Your task to perform on an android device: Add "logitech g pro" to the cart on bestbuy.com Image 0: 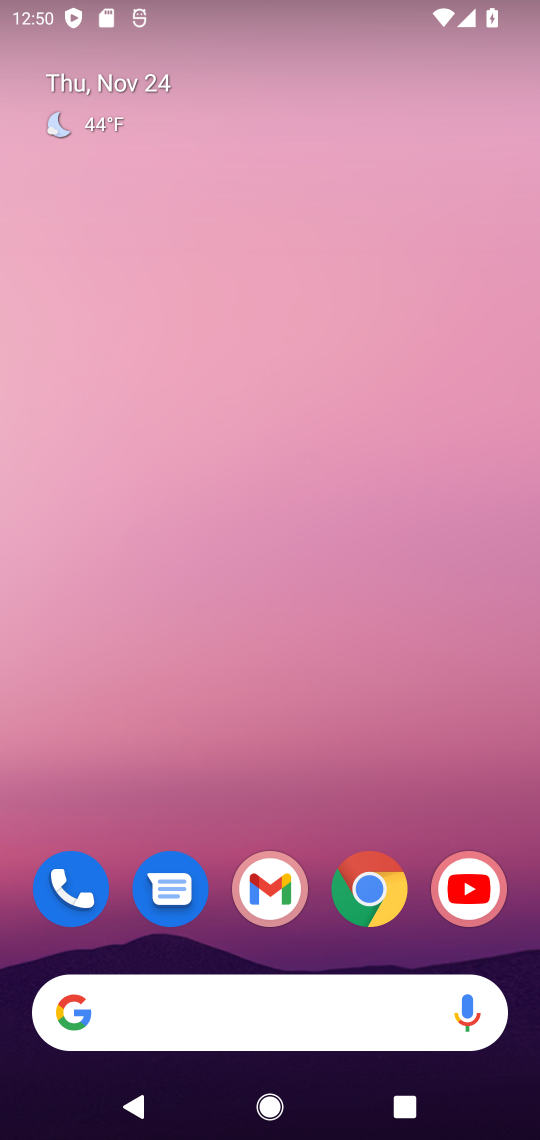
Step 0: click (368, 890)
Your task to perform on an android device: Add "logitech g pro" to the cart on bestbuy.com Image 1: 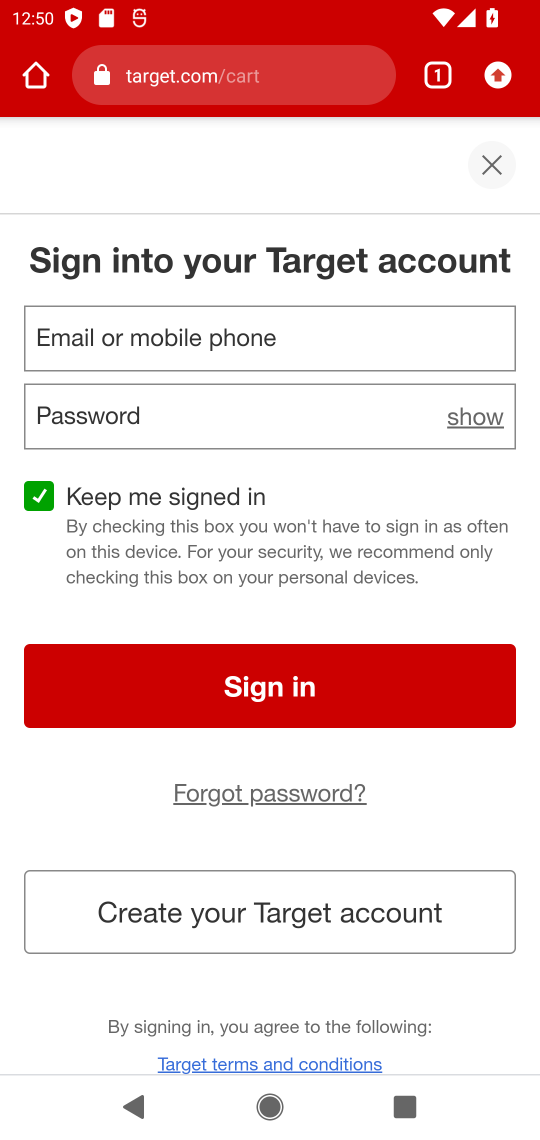
Step 1: click (171, 88)
Your task to perform on an android device: Add "logitech g pro" to the cart on bestbuy.com Image 2: 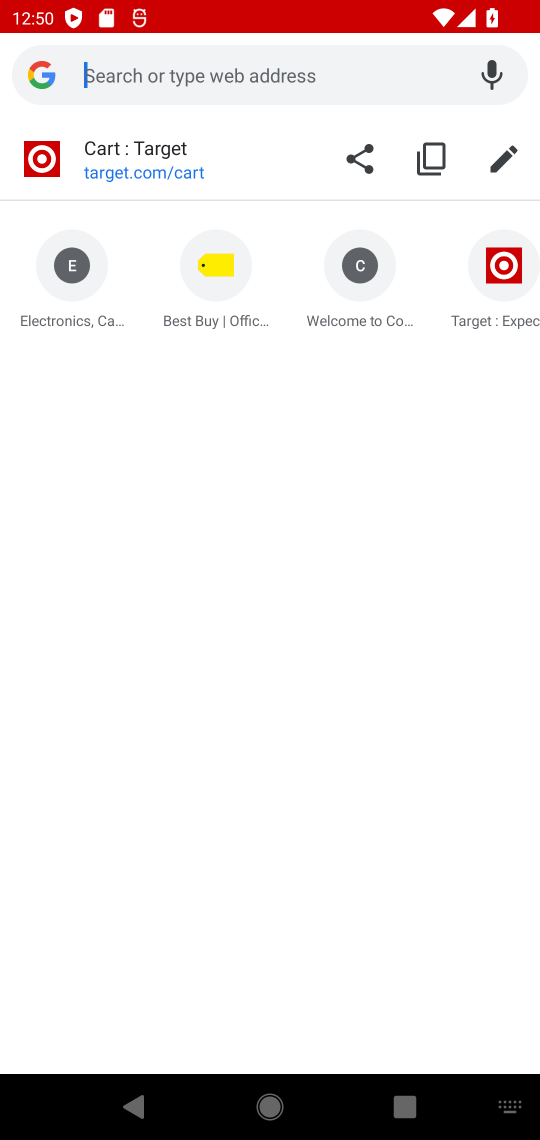
Step 2: click (204, 277)
Your task to perform on an android device: Add "logitech g pro" to the cart on bestbuy.com Image 3: 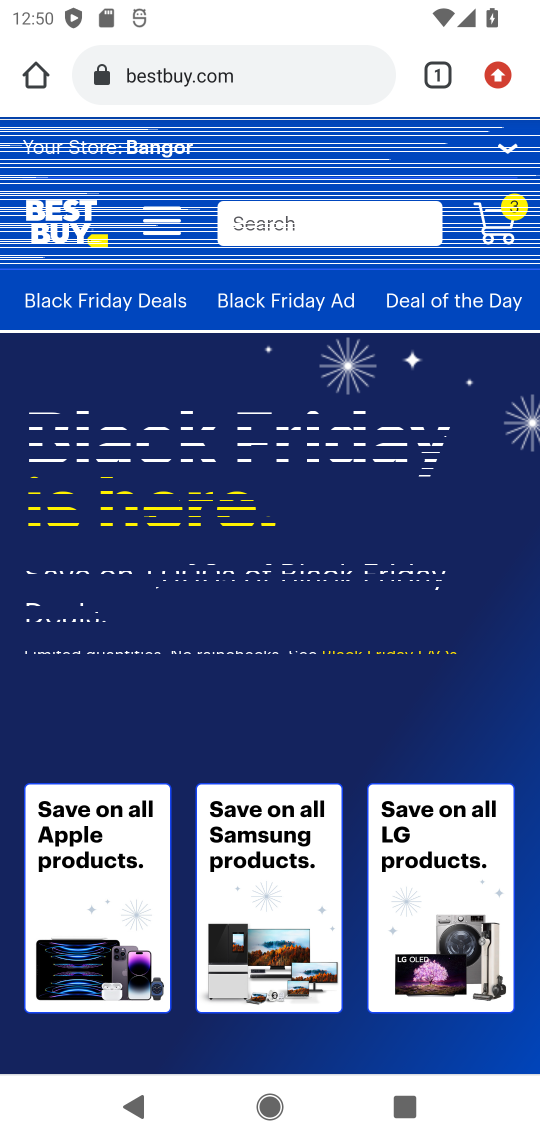
Step 3: click (281, 228)
Your task to perform on an android device: Add "logitech g pro" to the cart on bestbuy.com Image 4: 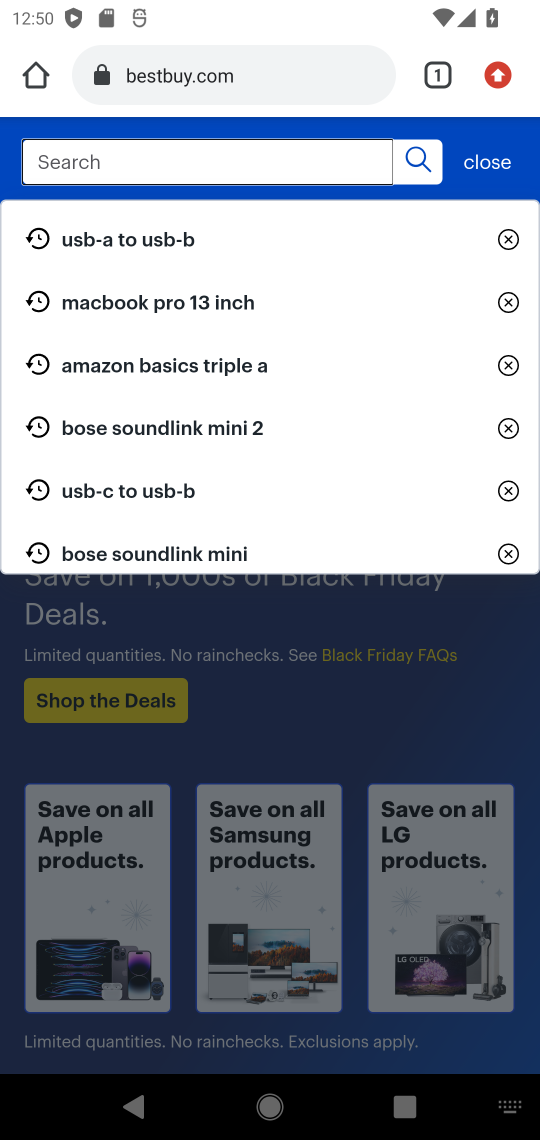
Step 4: type "logitech g pro"
Your task to perform on an android device: Add "logitech g pro" to the cart on bestbuy.com Image 5: 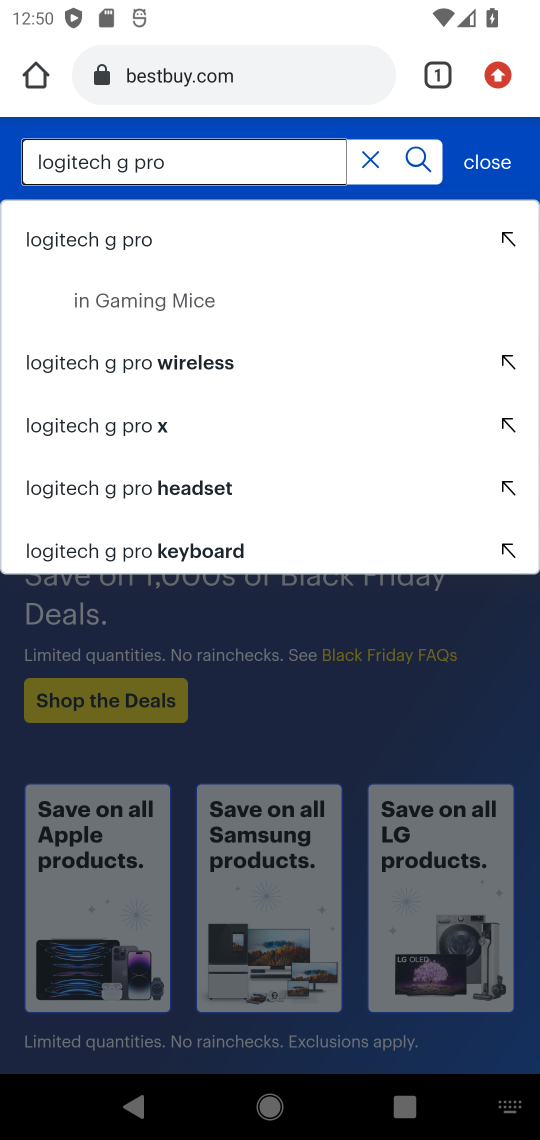
Step 5: click (90, 252)
Your task to perform on an android device: Add "logitech g pro" to the cart on bestbuy.com Image 6: 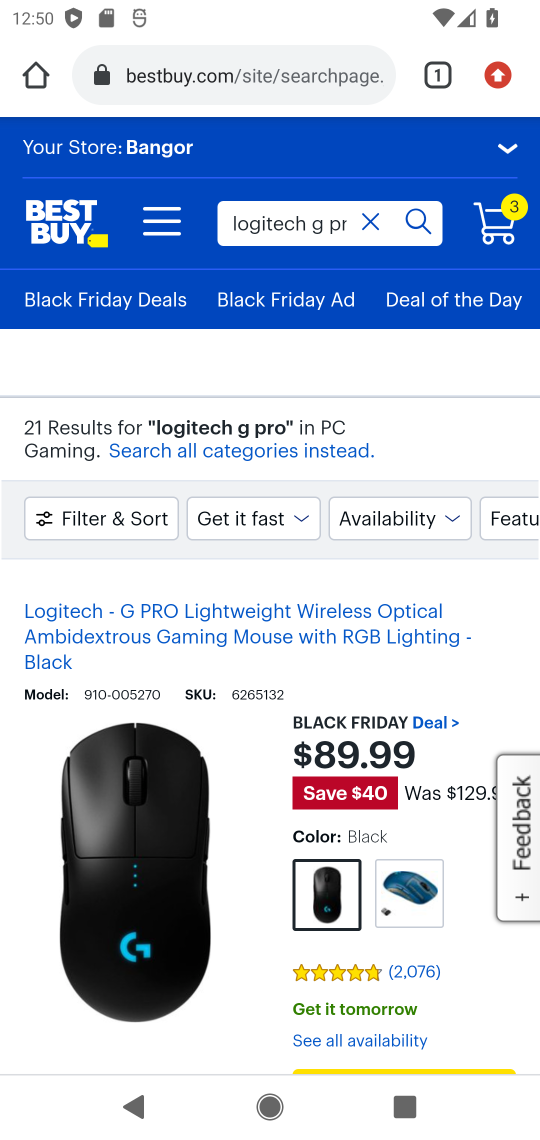
Step 6: drag from (176, 892) to (176, 584)
Your task to perform on an android device: Add "logitech g pro" to the cart on bestbuy.com Image 7: 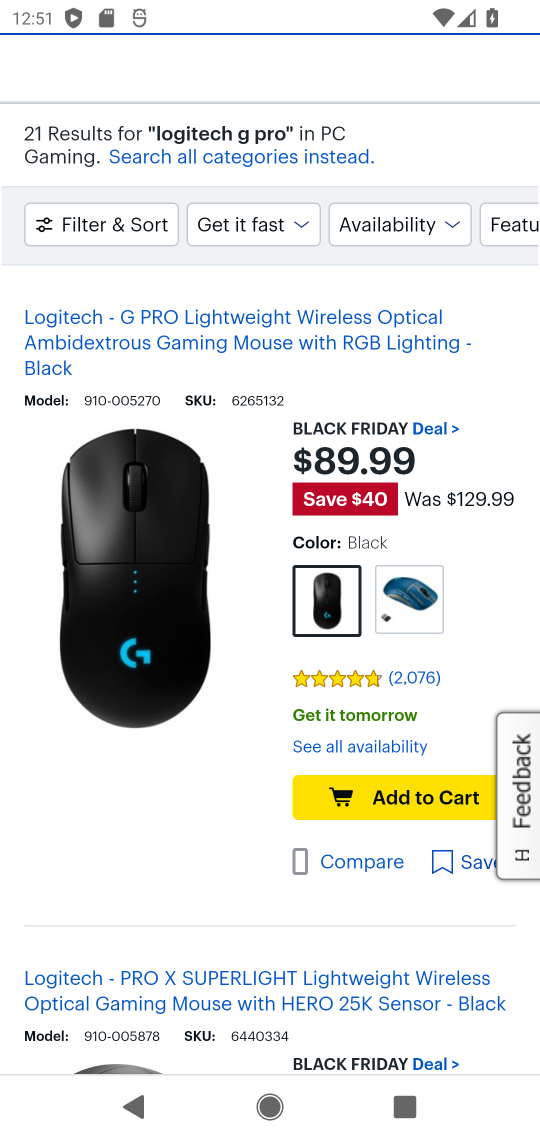
Step 7: click (401, 805)
Your task to perform on an android device: Add "logitech g pro" to the cart on bestbuy.com Image 8: 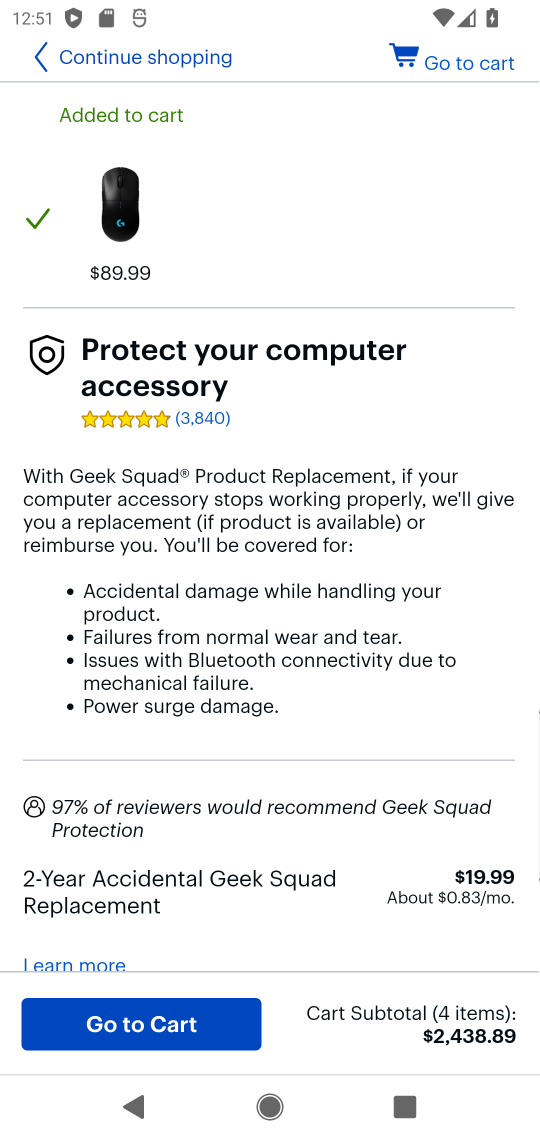
Step 8: task complete